Your task to perform on an android device: all mails in gmail Image 0: 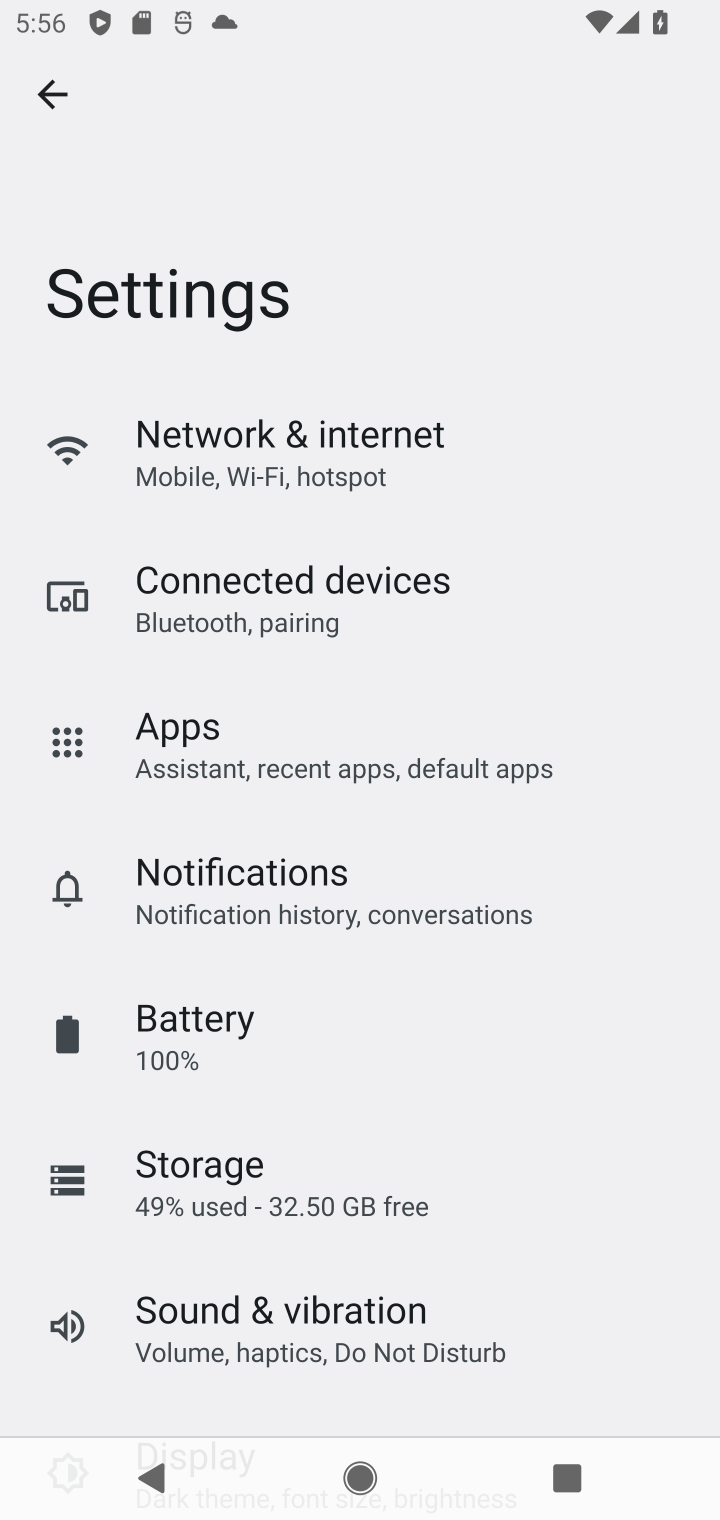
Step 0: press home button
Your task to perform on an android device: all mails in gmail Image 1: 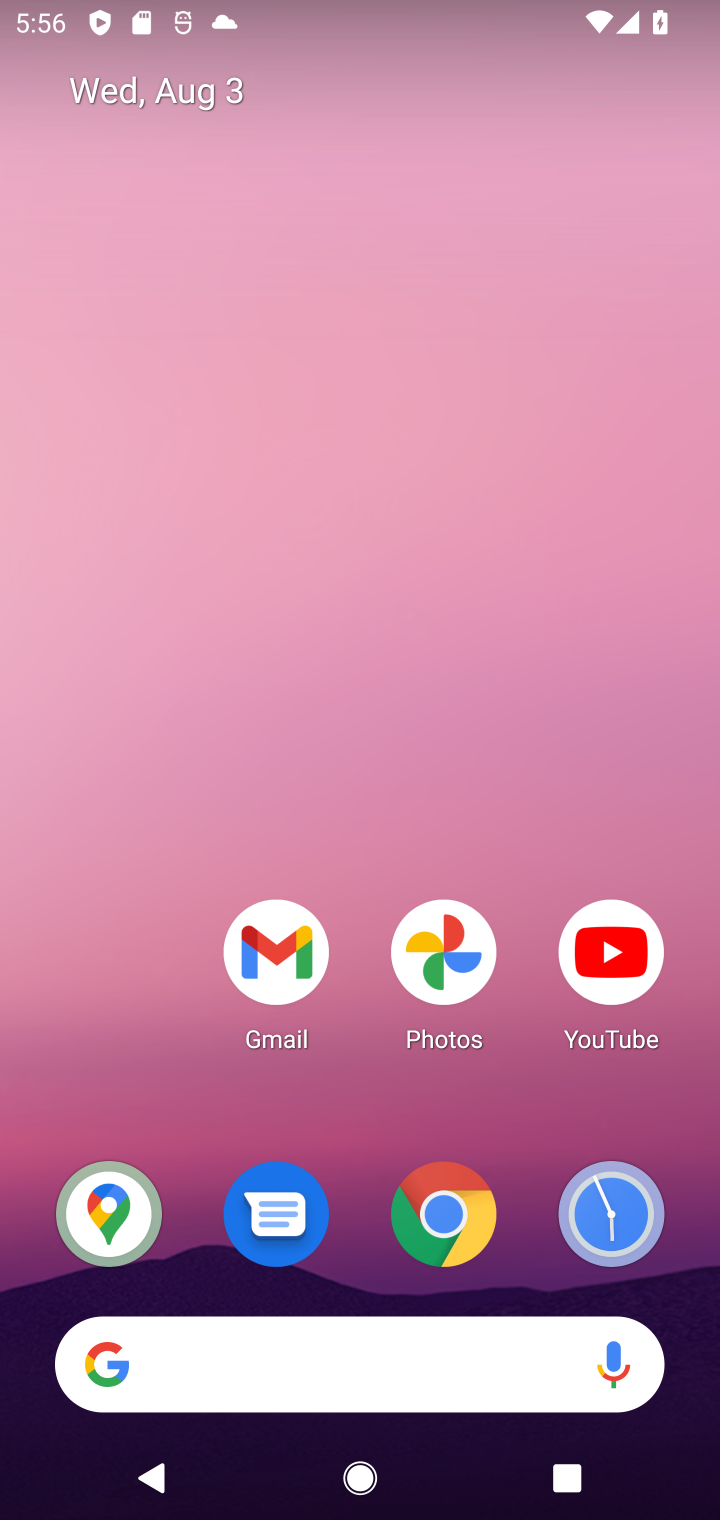
Step 1: drag from (48, 1121) to (274, 0)
Your task to perform on an android device: all mails in gmail Image 2: 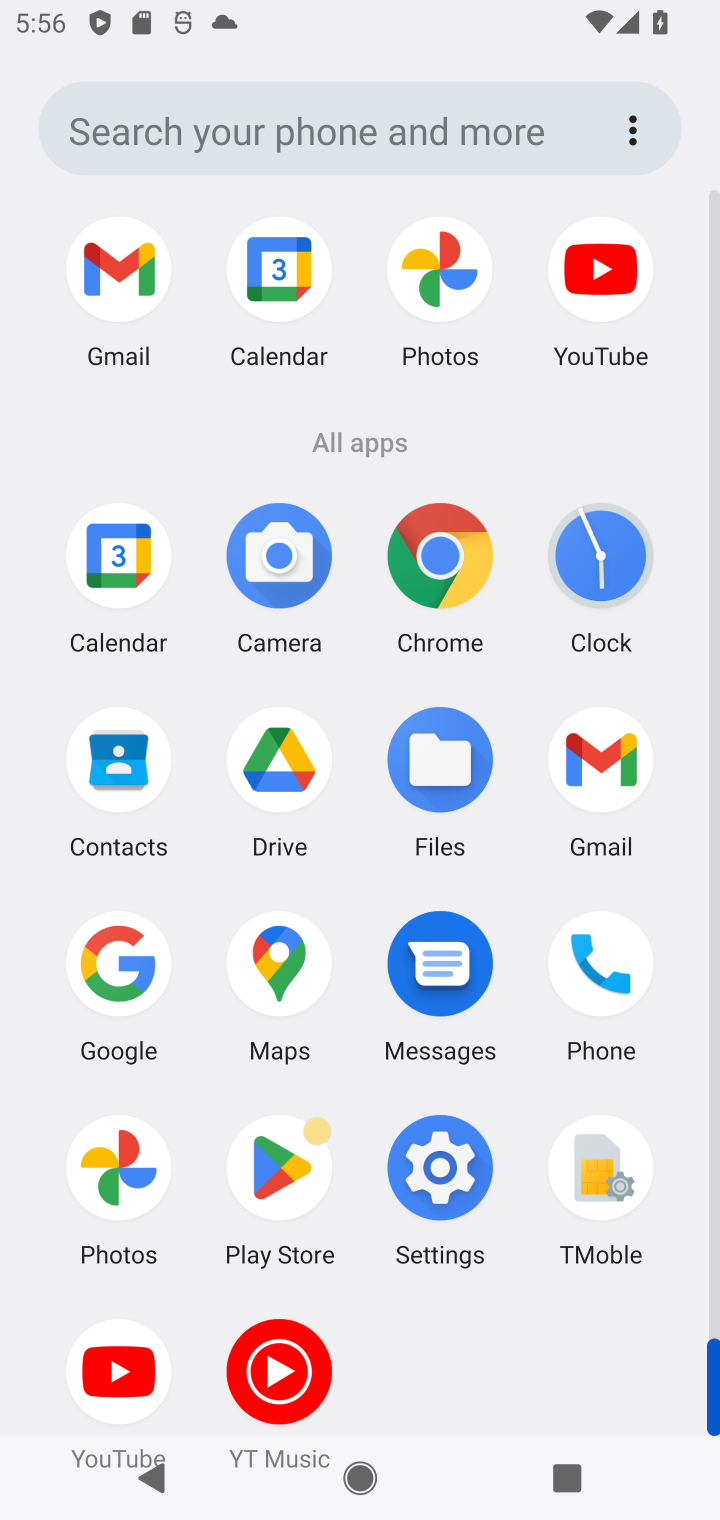
Step 2: click (116, 274)
Your task to perform on an android device: all mails in gmail Image 3: 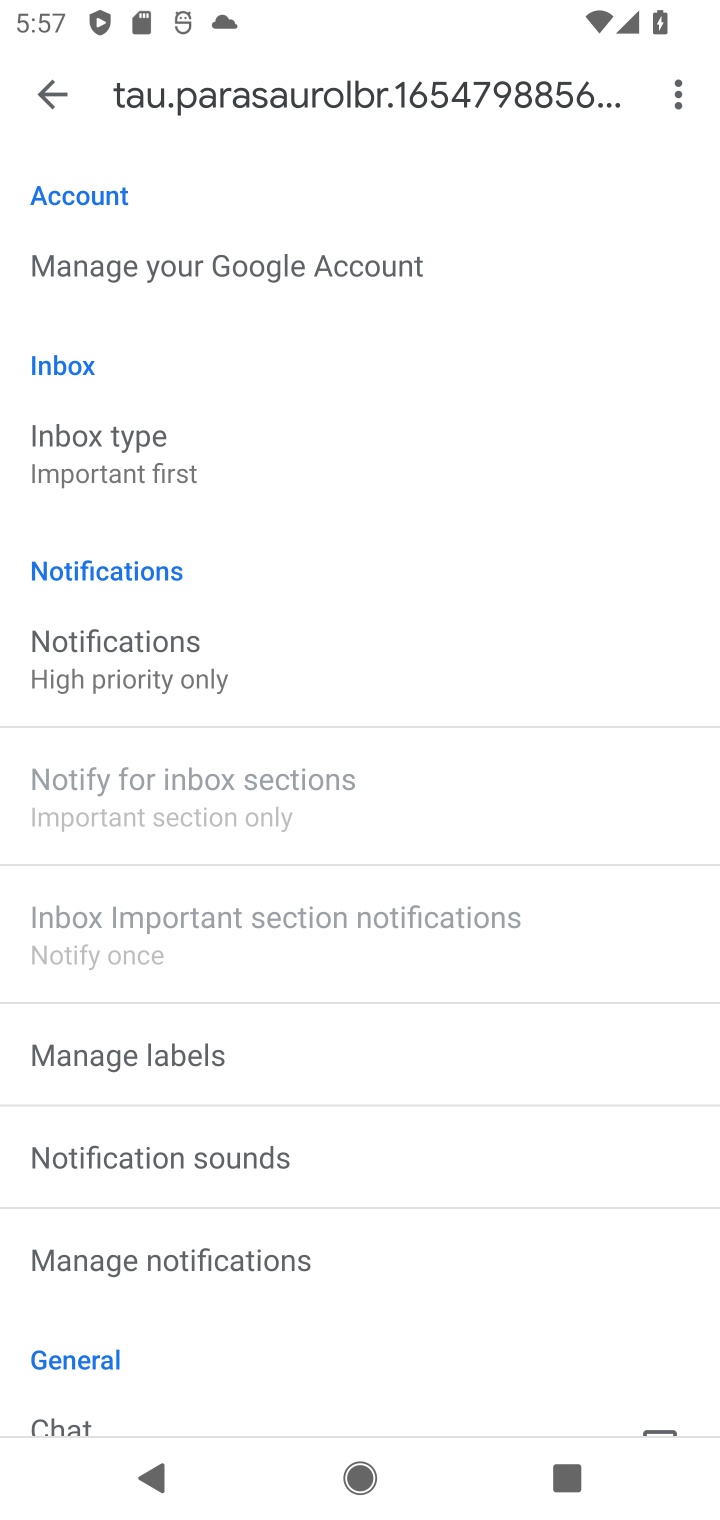
Step 3: click (36, 104)
Your task to perform on an android device: all mails in gmail Image 4: 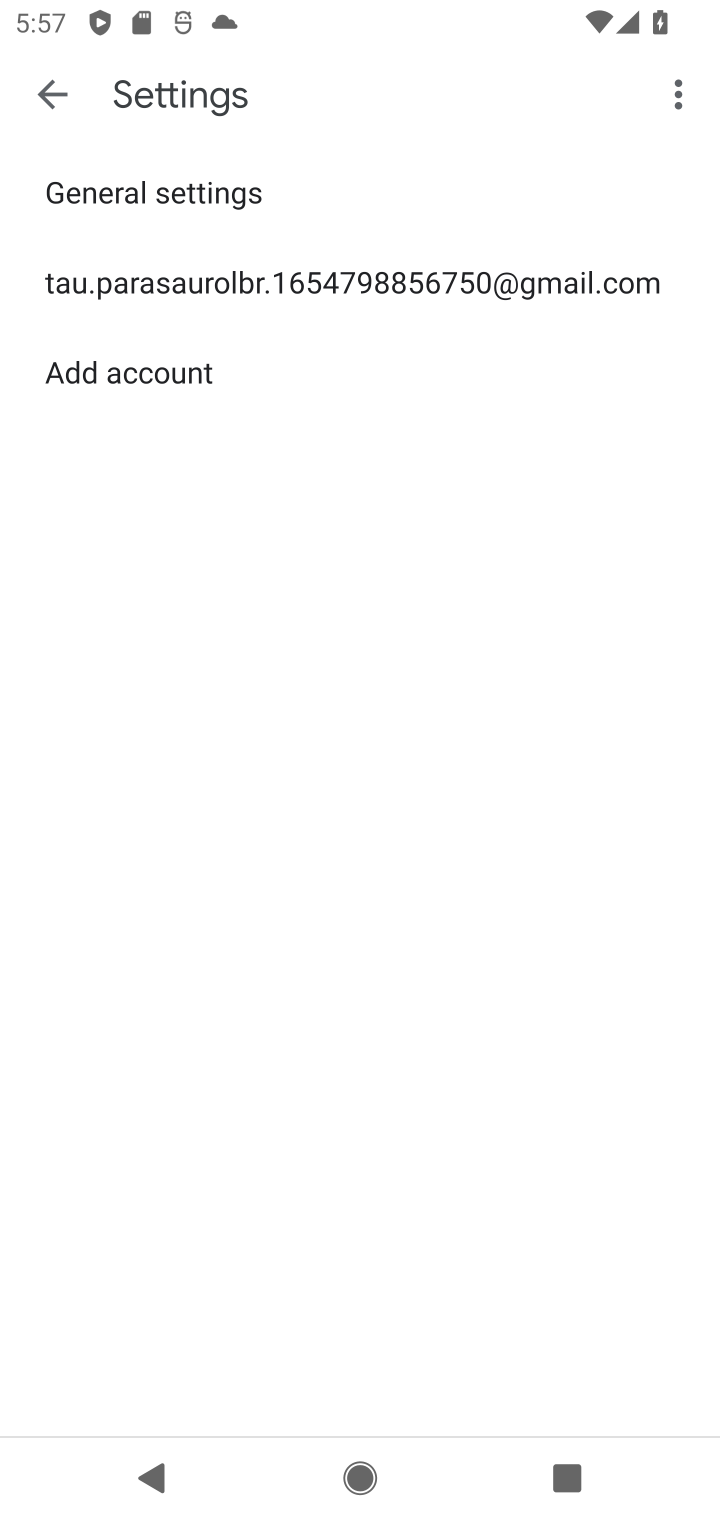
Step 4: click (34, 101)
Your task to perform on an android device: all mails in gmail Image 5: 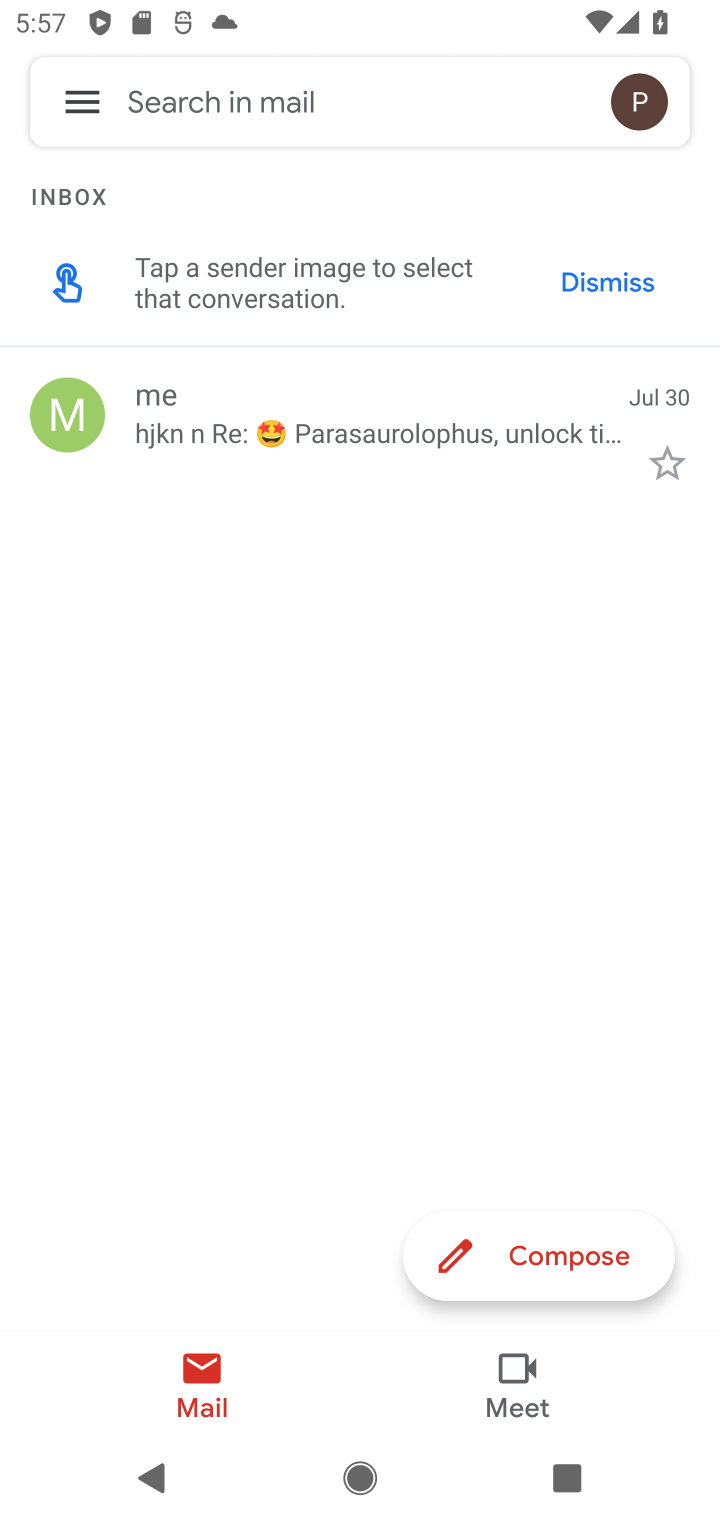
Step 5: click (89, 94)
Your task to perform on an android device: all mails in gmail Image 6: 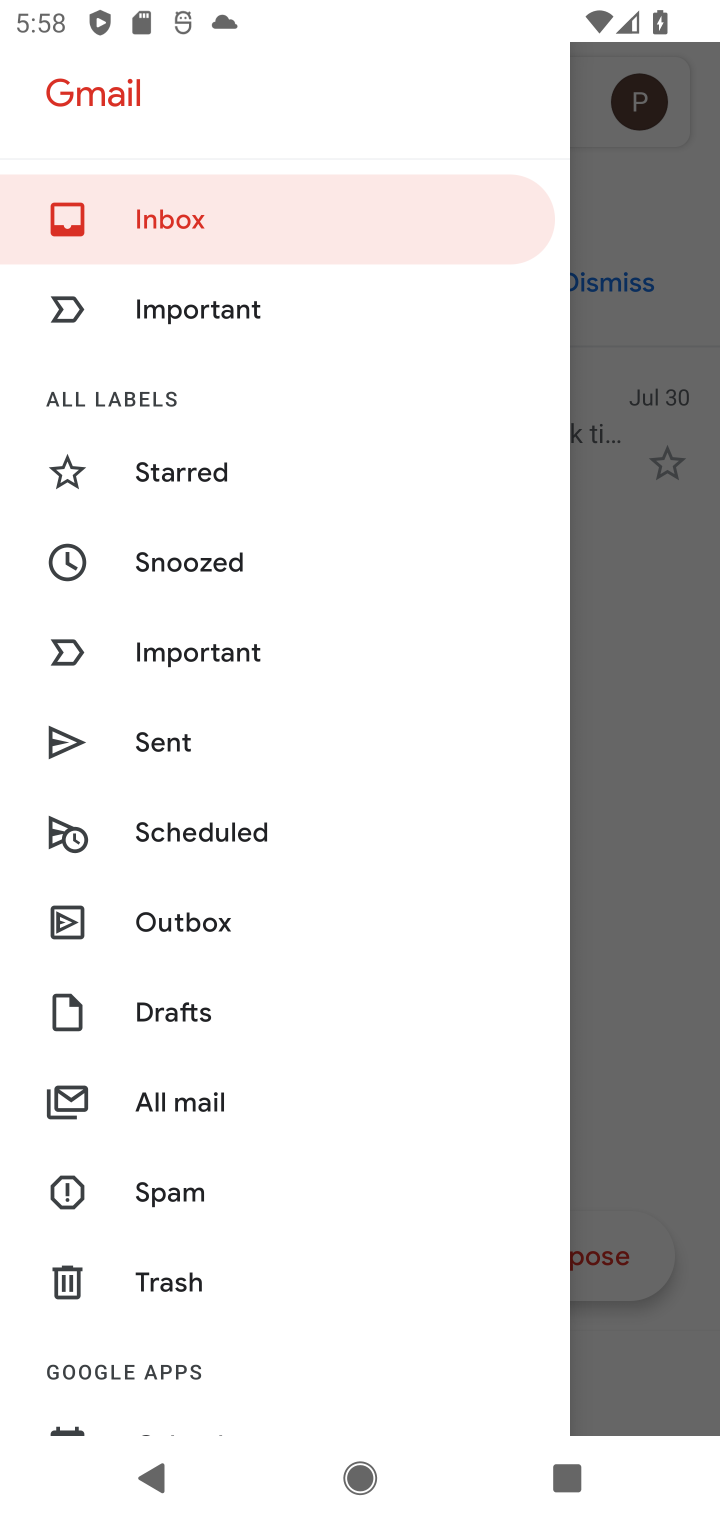
Step 6: click (214, 1110)
Your task to perform on an android device: all mails in gmail Image 7: 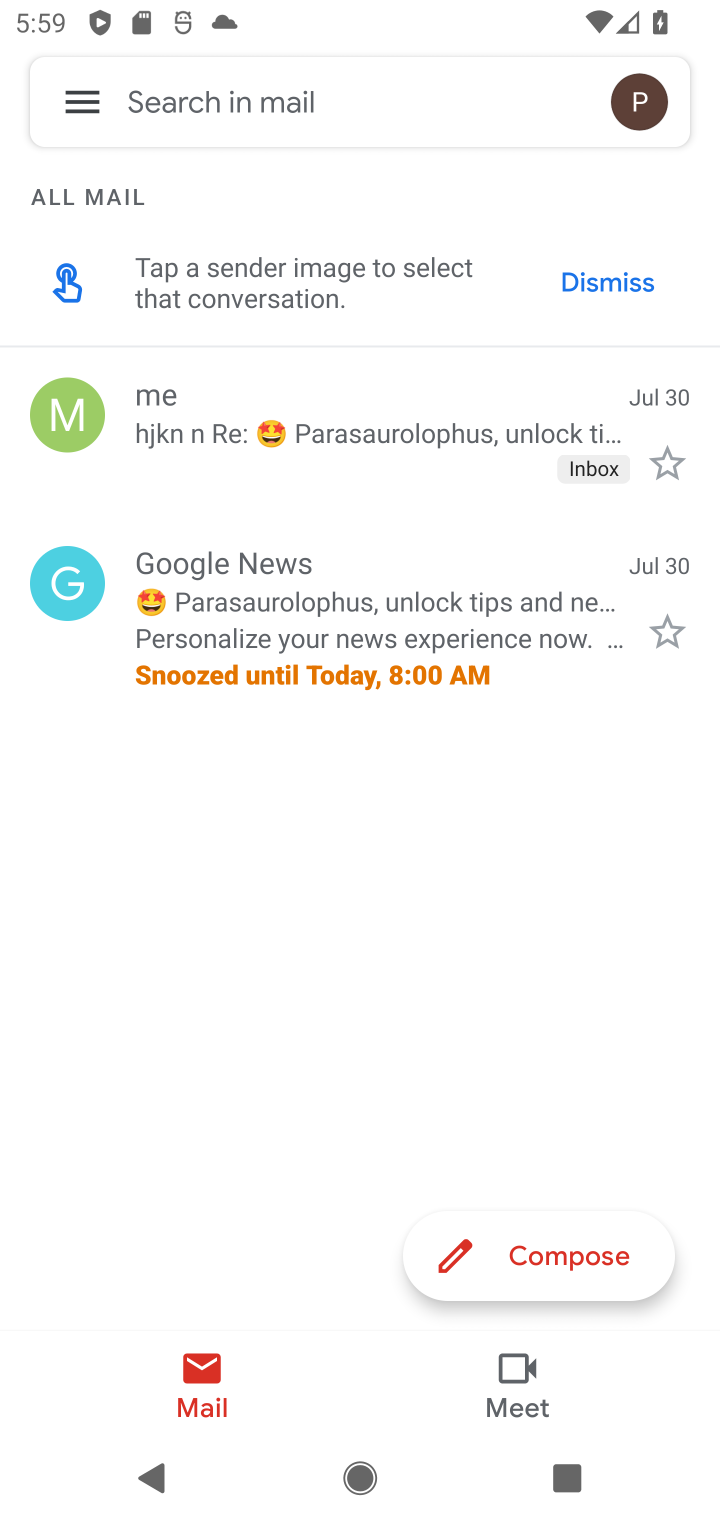
Step 7: click (91, 111)
Your task to perform on an android device: all mails in gmail Image 8: 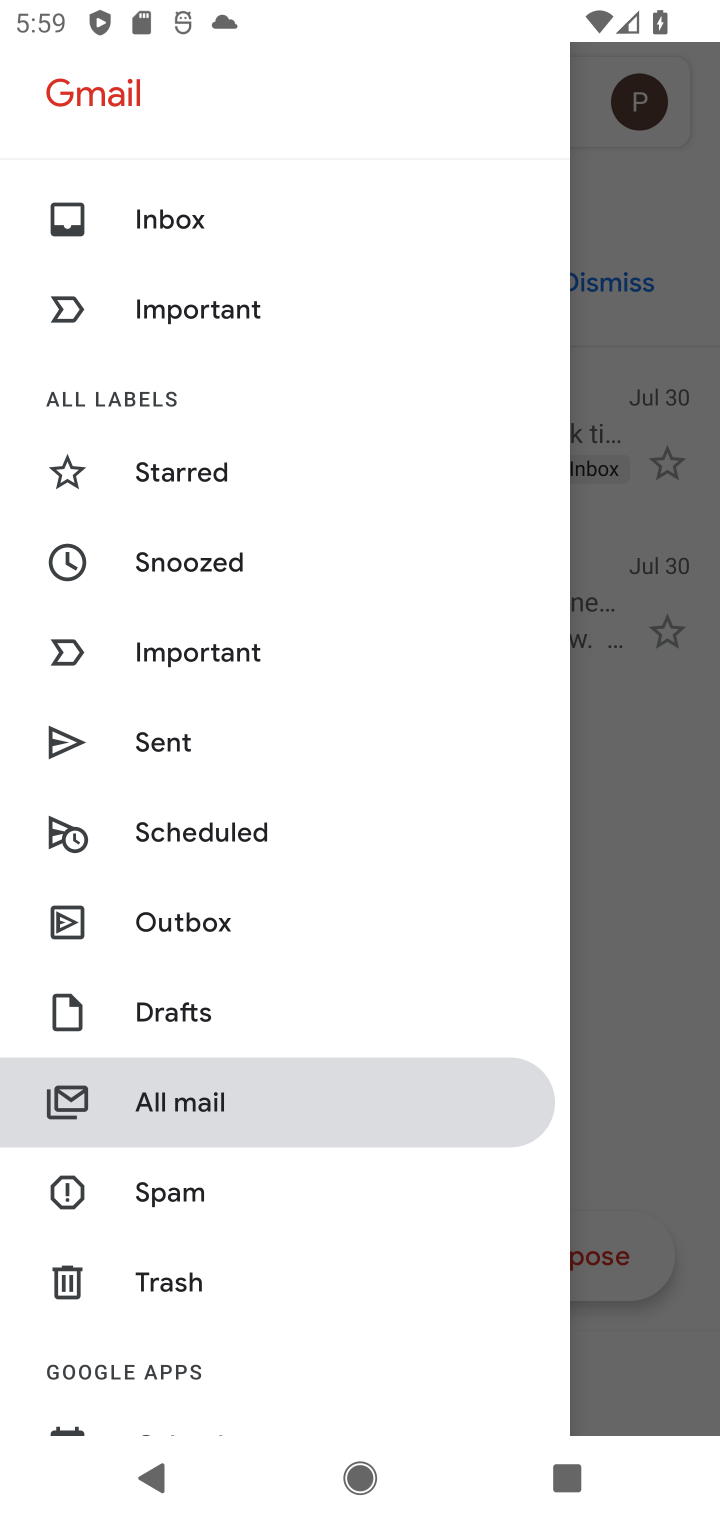
Step 8: click (177, 1119)
Your task to perform on an android device: all mails in gmail Image 9: 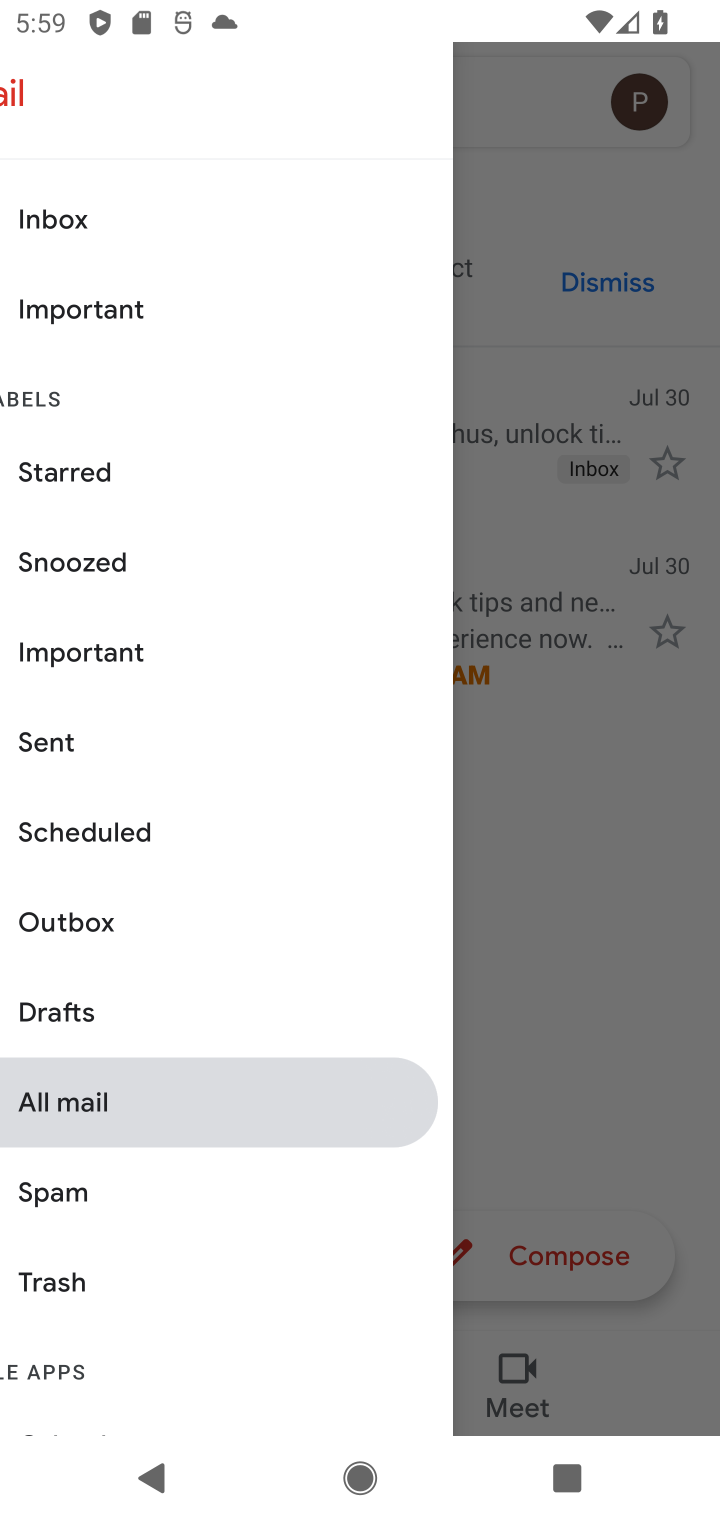
Step 9: task complete